Your task to perform on an android device: add a contact in the contacts app Image 0: 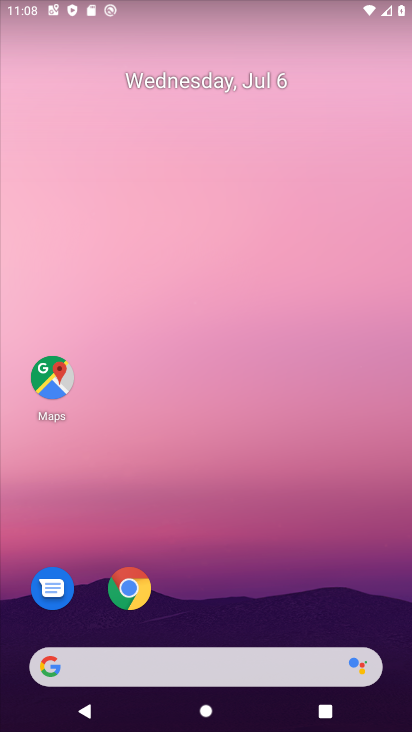
Step 0: drag from (243, 616) to (253, 246)
Your task to perform on an android device: add a contact in the contacts app Image 1: 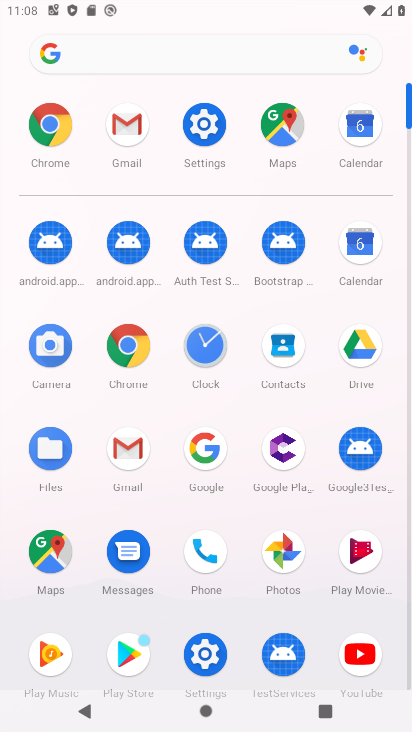
Step 1: click (199, 545)
Your task to perform on an android device: add a contact in the contacts app Image 2: 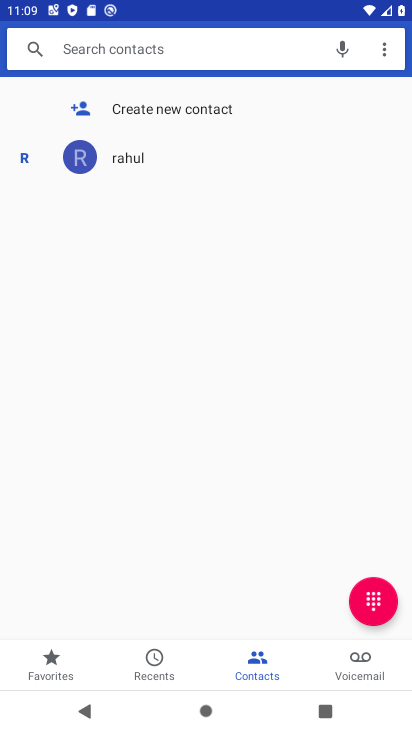
Step 2: click (147, 101)
Your task to perform on an android device: add a contact in the contacts app Image 3: 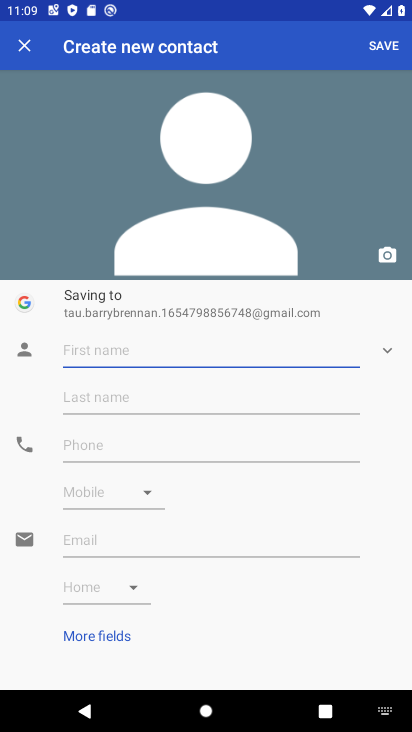
Step 3: click (196, 348)
Your task to perform on an android device: add a contact in the contacts app Image 4: 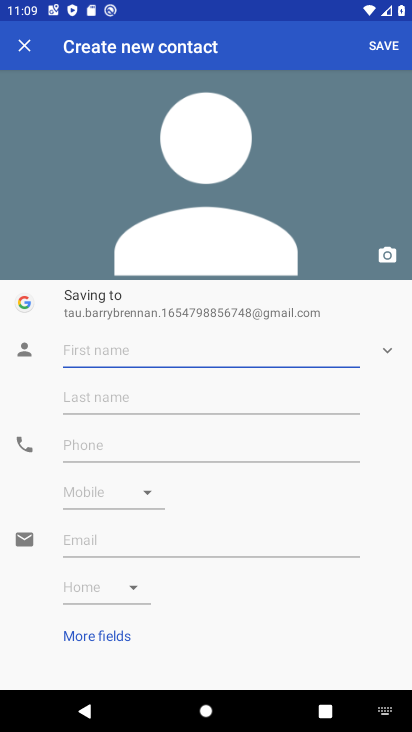
Step 4: type "pardeeep "
Your task to perform on an android device: add a contact in the contacts app Image 5: 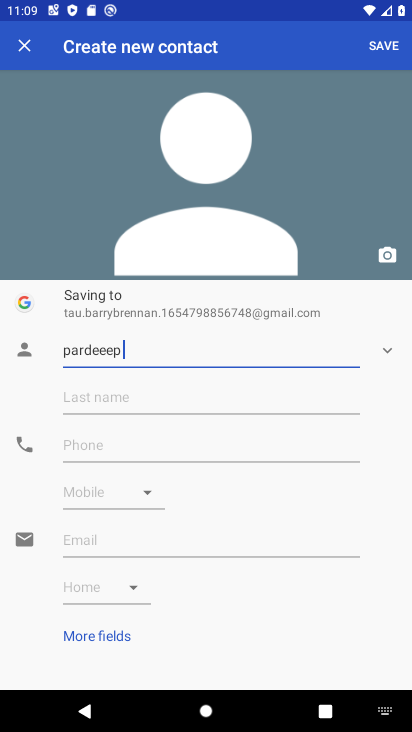
Step 5: click (224, 428)
Your task to perform on an android device: add a contact in the contacts app Image 6: 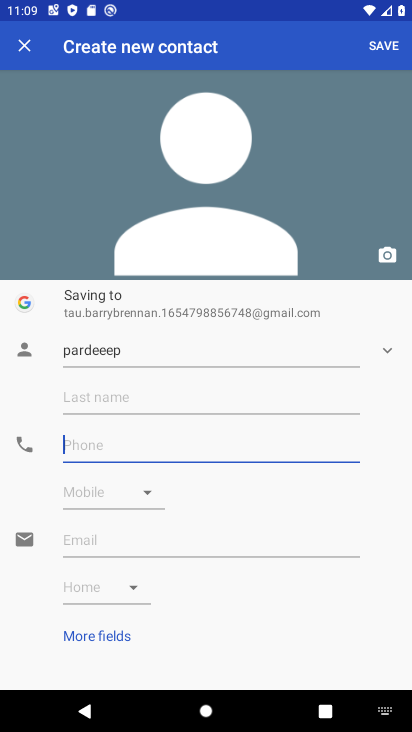
Step 6: type "98996561366 "
Your task to perform on an android device: add a contact in the contacts app Image 7: 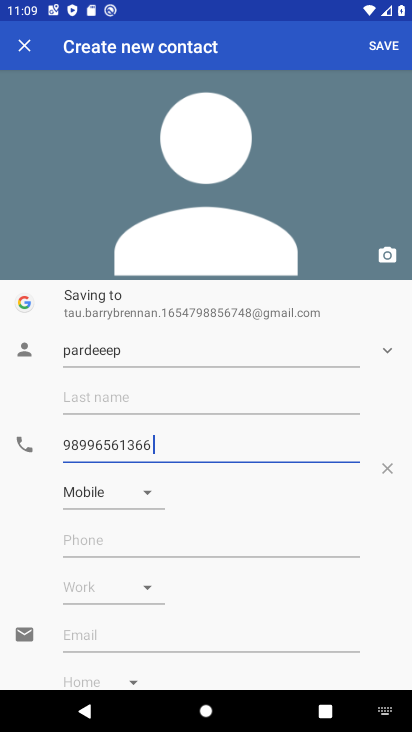
Step 7: click (393, 31)
Your task to perform on an android device: add a contact in the contacts app Image 8: 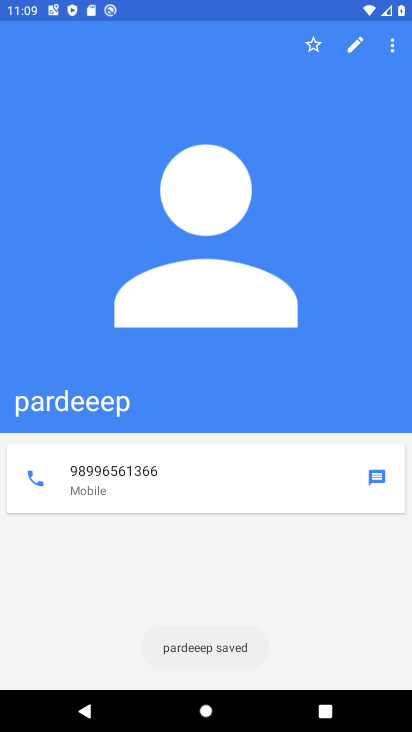
Step 8: task complete